Your task to perform on an android device: Go to battery settings Image 0: 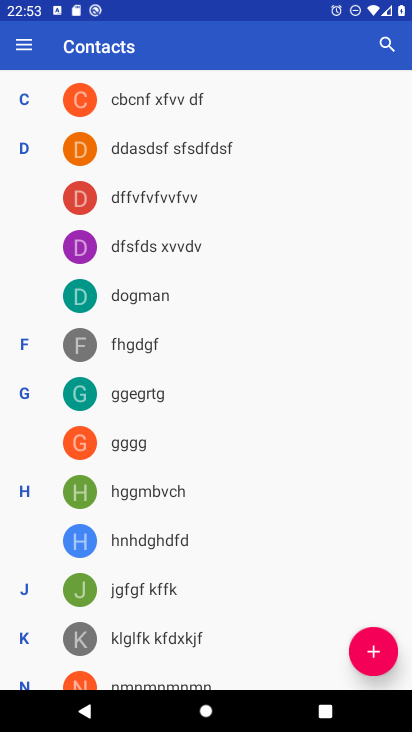
Step 0: press home button
Your task to perform on an android device: Go to battery settings Image 1: 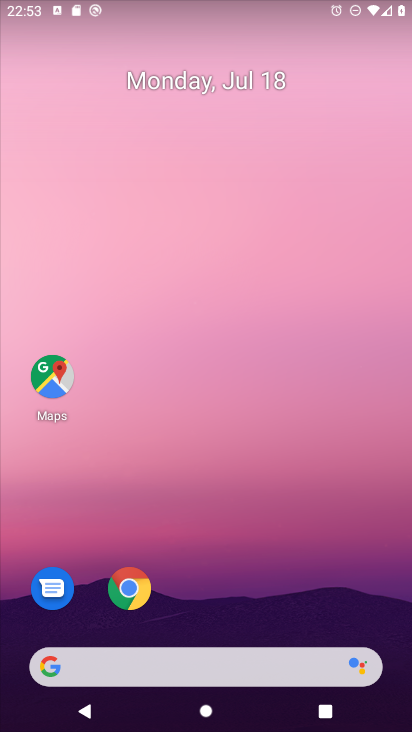
Step 1: drag from (377, 614) to (348, 83)
Your task to perform on an android device: Go to battery settings Image 2: 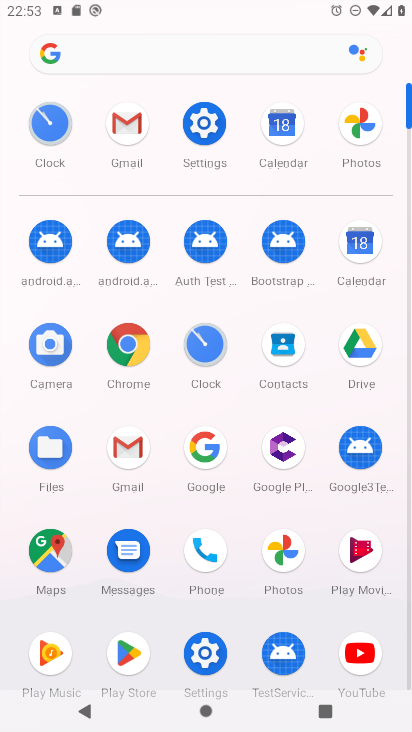
Step 2: click (204, 650)
Your task to perform on an android device: Go to battery settings Image 3: 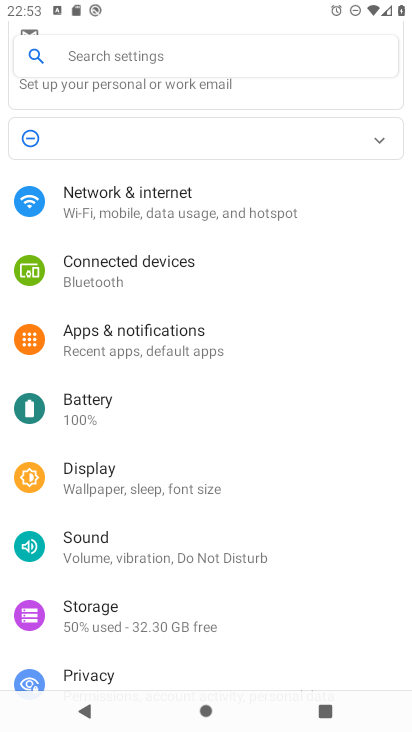
Step 3: click (87, 411)
Your task to perform on an android device: Go to battery settings Image 4: 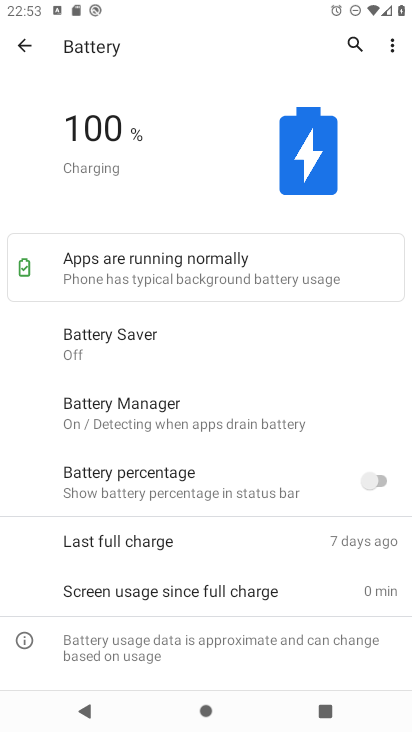
Step 4: task complete